Your task to perform on an android device: open app "Google News" Image 0: 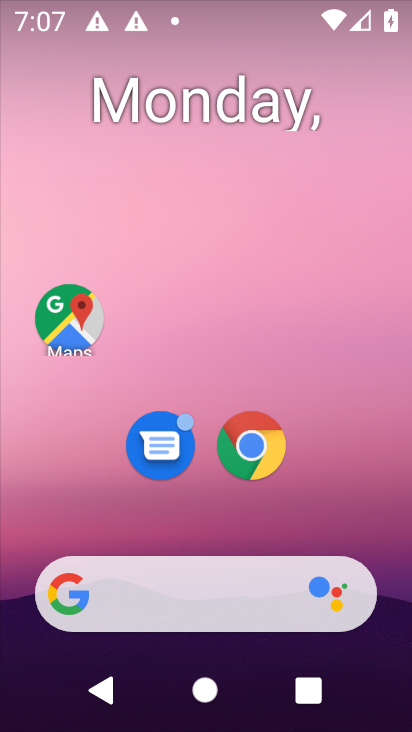
Step 0: drag from (403, 609) to (249, 132)
Your task to perform on an android device: open app "Google News" Image 1: 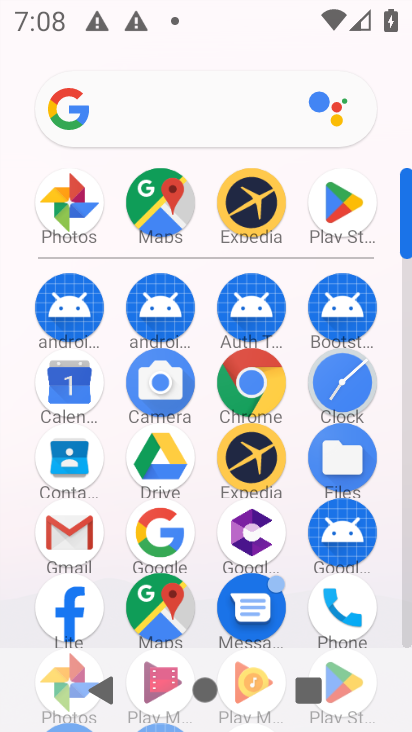
Step 1: click (347, 214)
Your task to perform on an android device: open app "Google News" Image 2: 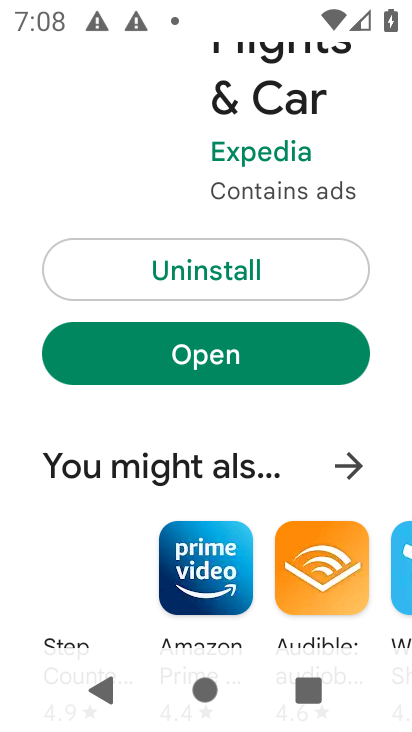
Step 2: press back button
Your task to perform on an android device: open app "Google News" Image 3: 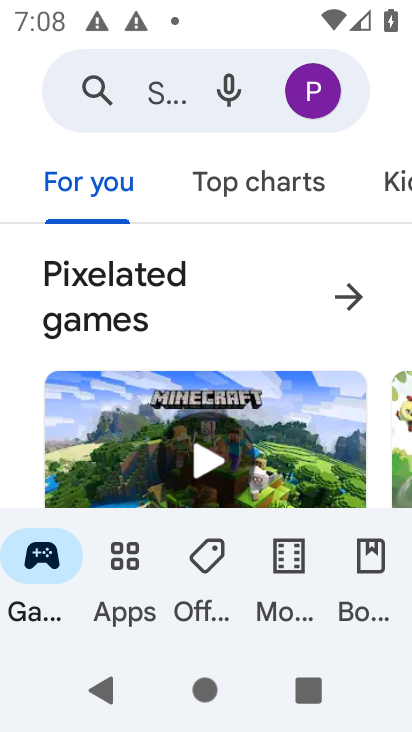
Step 3: click (157, 88)
Your task to perform on an android device: open app "Google News" Image 4: 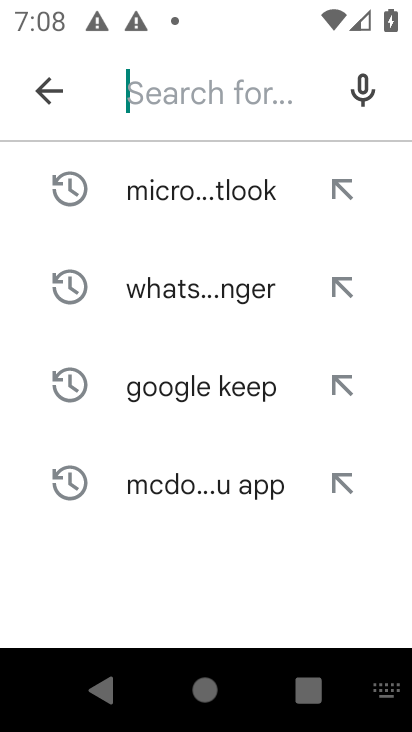
Step 4: type "Google News"
Your task to perform on an android device: open app "Google News" Image 5: 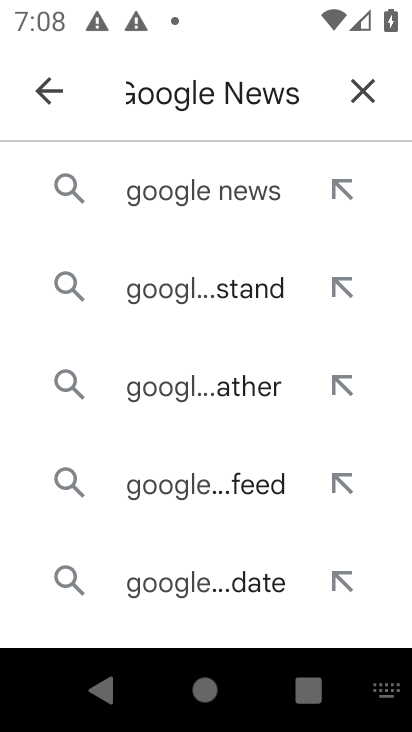
Step 5: click (204, 201)
Your task to perform on an android device: open app "Google News" Image 6: 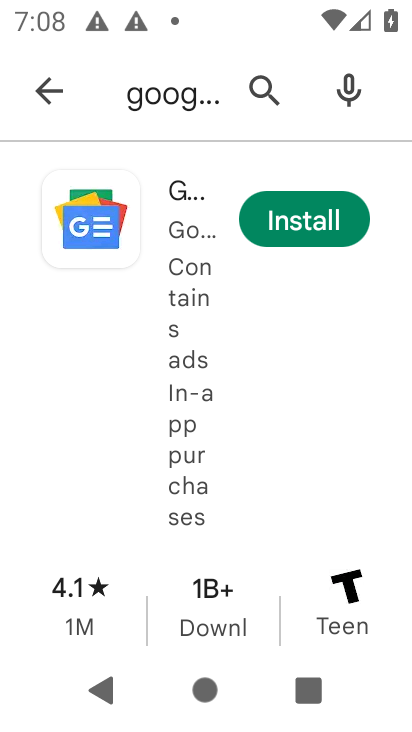
Step 6: task complete